Your task to perform on an android device: Open Google Chrome Image 0: 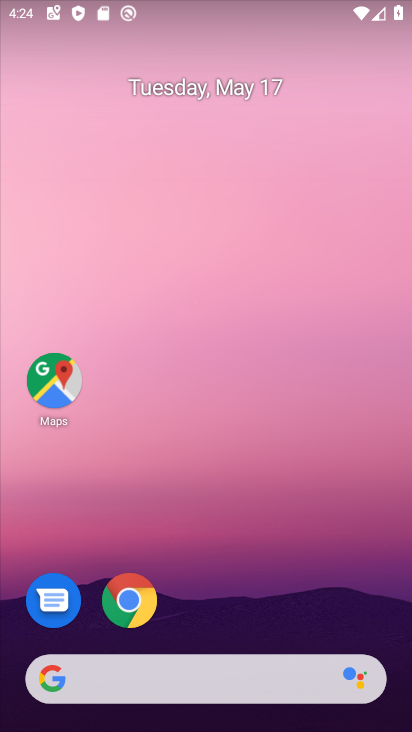
Step 0: drag from (207, 628) to (347, 16)
Your task to perform on an android device: Open Google Chrome Image 1: 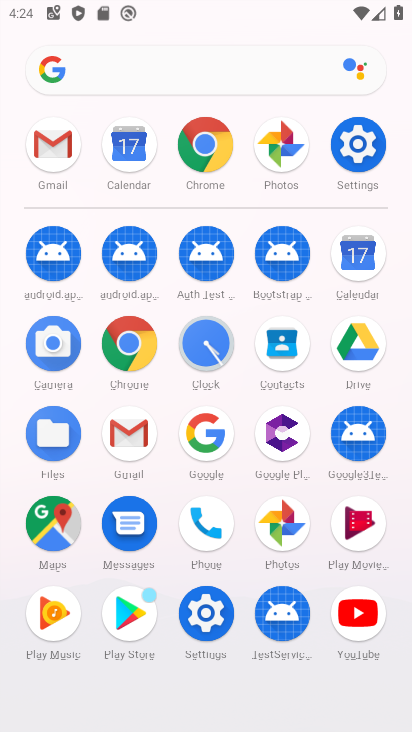
Step 1: click (146, 350)
Your task to perform on an android device: Open Google Chrome Image 2: 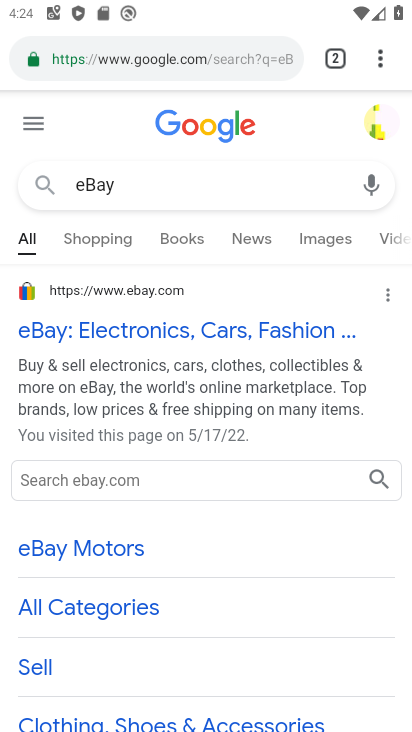
Step 2: task complete